Your task to perform on an android device: Go to network settings Image 0: 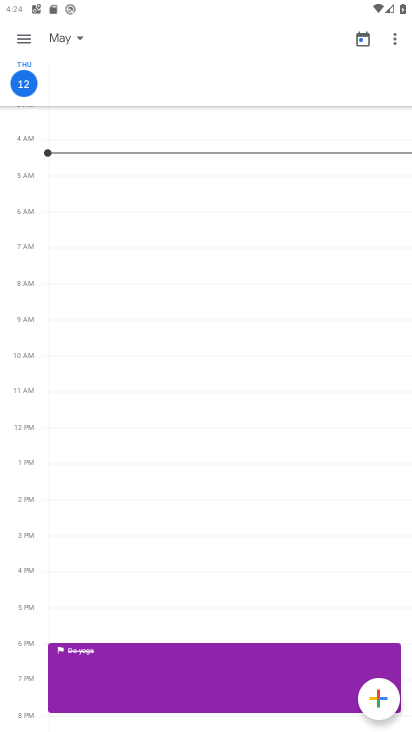
Step 0: press home button
Your task to perform on an android device: Go to network settings Image 1: 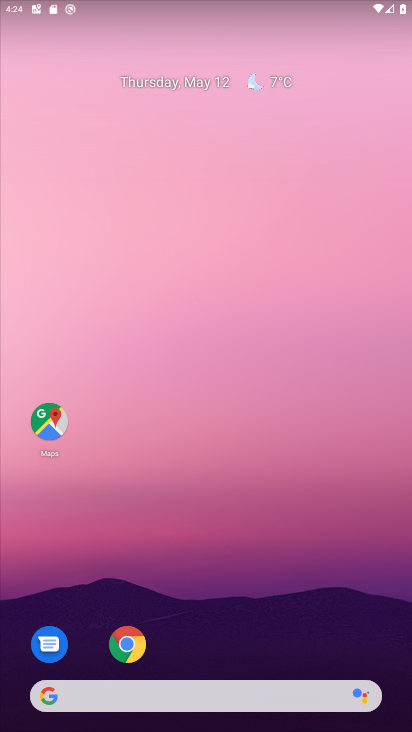
Step 1: drag from (213, 647) to (232, 89)
Your task to perform on an android device: Go to network settings Image 2: 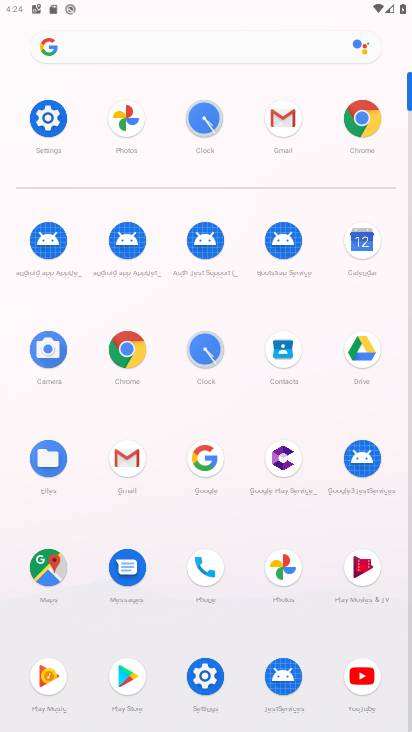
Step 2: click (43, 115)
Your task to perform on an android device: Go to network settings Image 3: 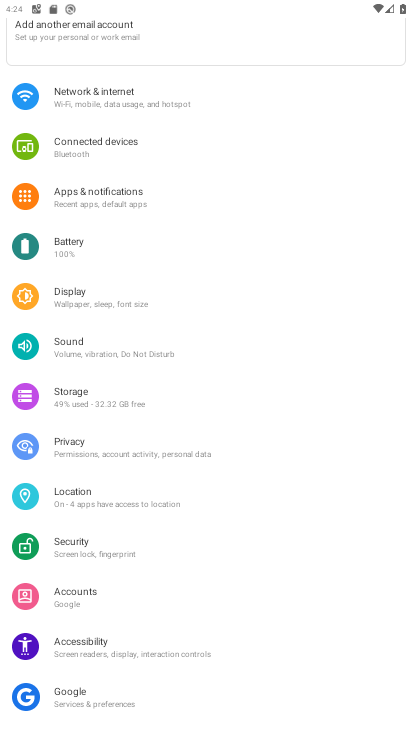
Step 3: click (103, 95)
Your task to perform on an android device: Go to network settings Image 4: 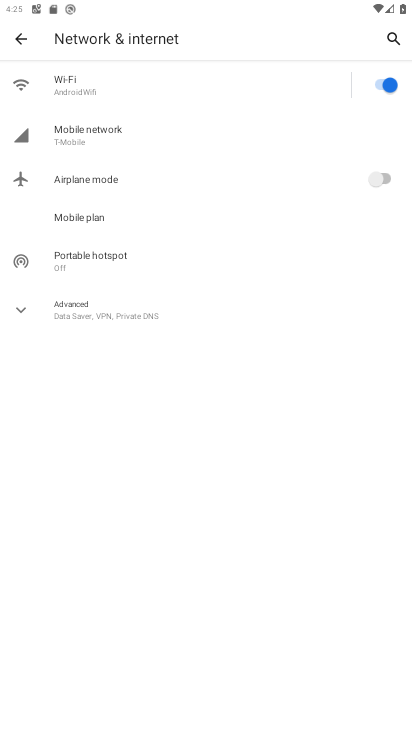
Step 4: click (25, 307)
Your task to perform on an android device: Go to network settings Image 5: 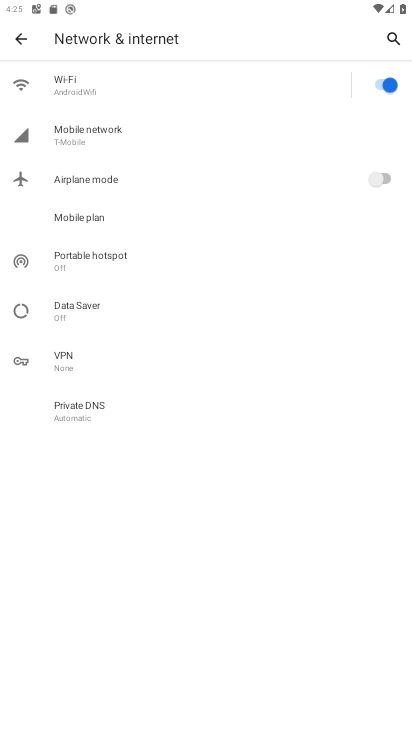
Step 5: task complete